Your task to perform on an android device: star an email in the gmail app Image 0: 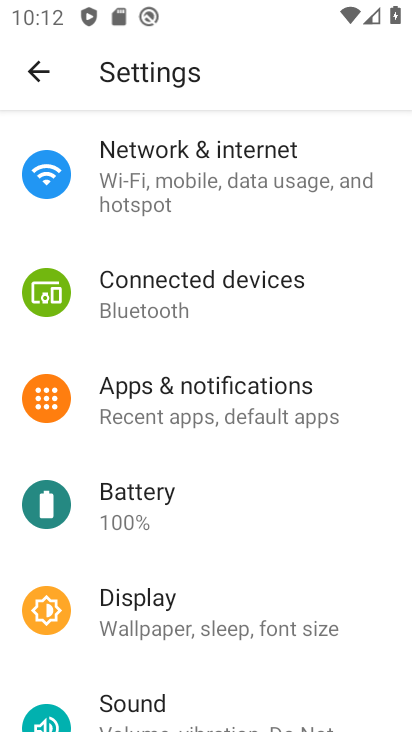
Step 0: task complete